Your task to perform on an android device: Open Chrome and go to settings Image 0: 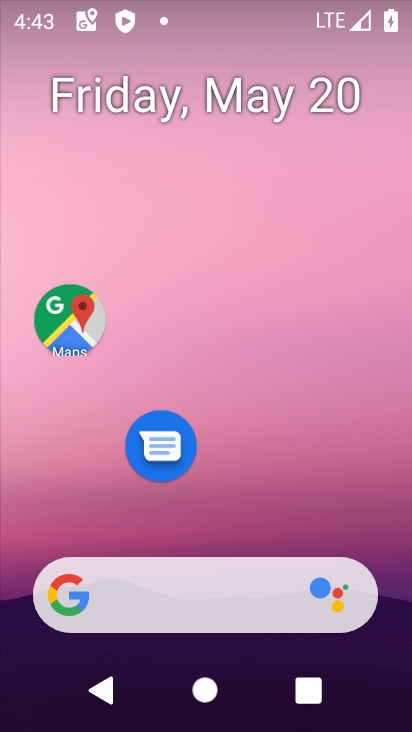
Step 0: drag from (212, 539) to (231, 77)
Your task to perform on an android device: Open Chrome and go to settings Image 1: 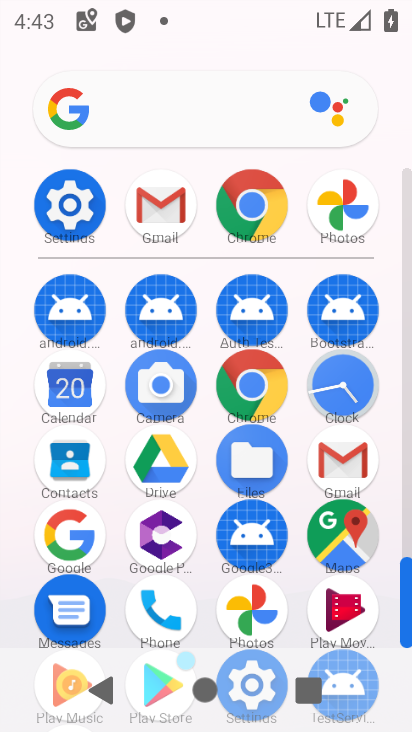
Step 1: click (253, 232)
Your task to perform on an android device: Open Chrome and go to settings Image 2: 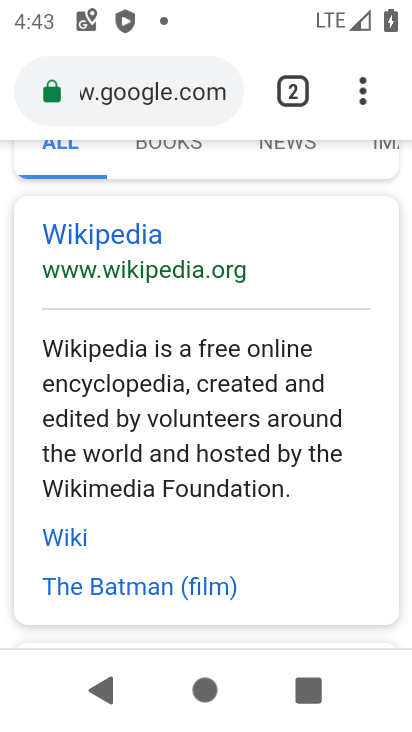
Step 2: click (372, 88)
Your task to perform on an android device: Open Chrome and go to settings Image 3: 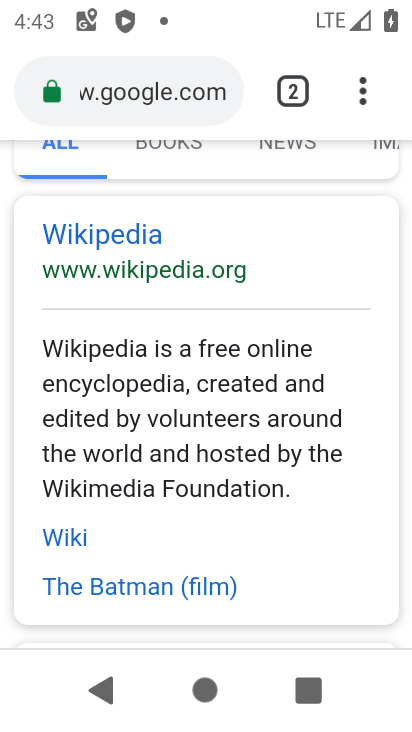
Step 3: click (359, 100)
Your task to perform on an android device: Open Chrome and go to settings Image 4: 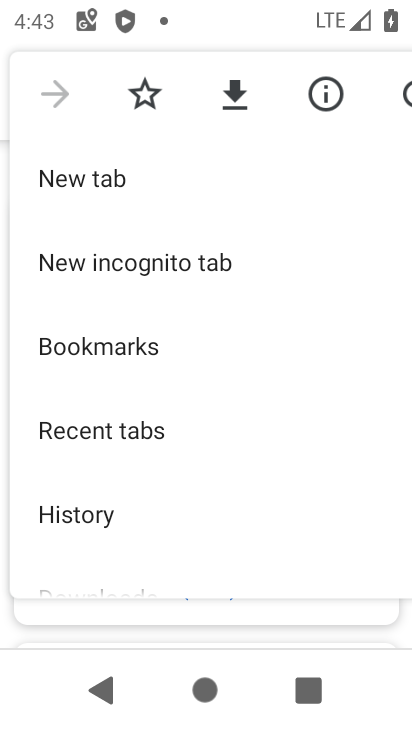
Step 4: drag from (186, 516) to (203, 159)
Your task to perform on an android device: Open Chrome and go to settings Image 5: 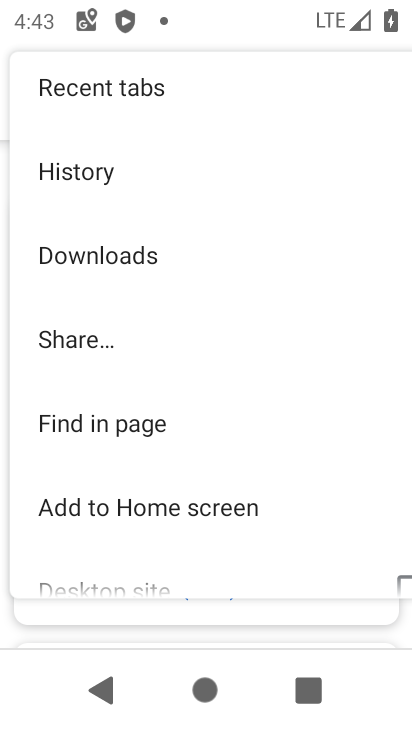
Step 5: drag from (152, 479) to (206, 229)
Your task to perform on an android device: Open Chrome and go to settings Image 6: 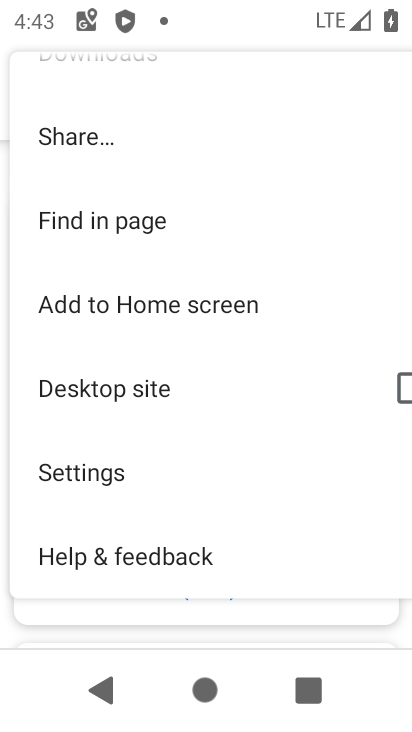
Step 6: click (107, 485)
Your task to perform on an android device: Open Chrome and go to settings Image 7: 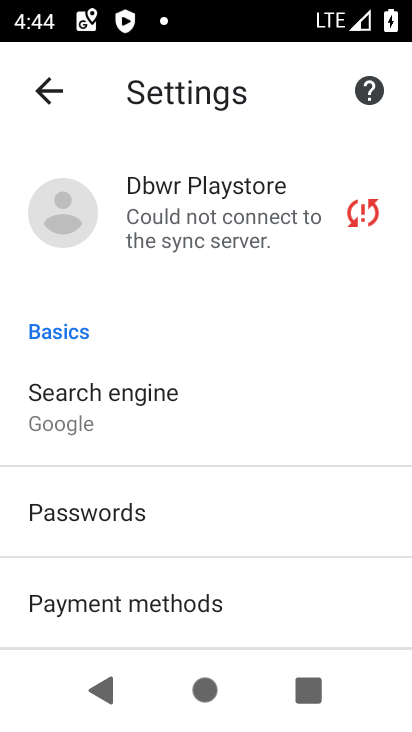
Step 7: task complete